Your task to perform on an android device: What is the recent news? Image 0: 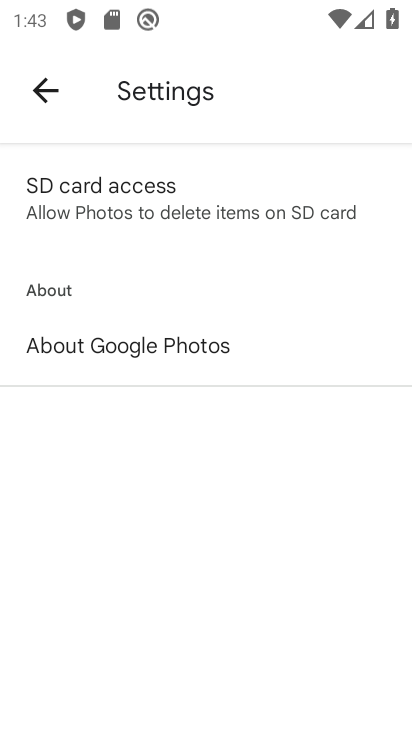
Step 0: press home button
Your task to perform on an android device: What is the recent news? Image 1: 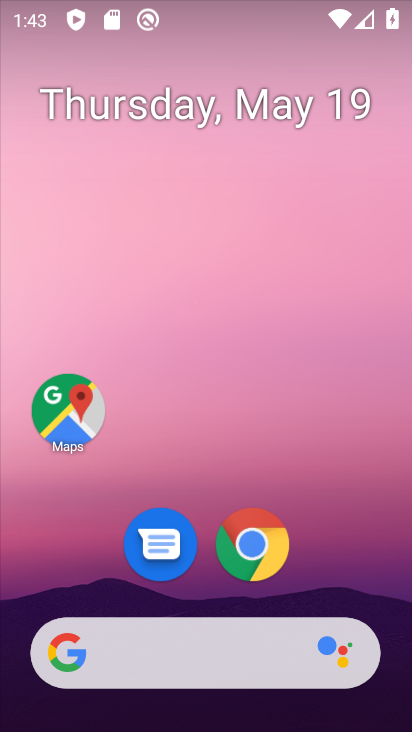
Step 1: click (169, 650)
Your task to perform on an android device: What is the recent news? Image 2: 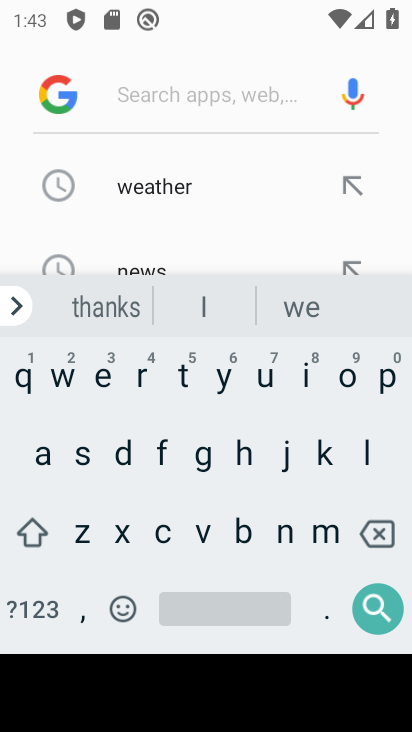
Step 2: click (147, 374)
Your task to perform on an android device: What is the recent news? Image 3: 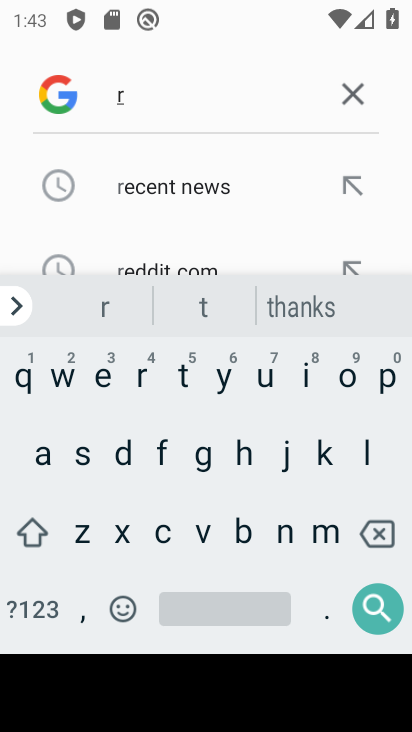
Step 3: click (103, 383)
Your task to perform on an android device: What is the recent news? Image 4: 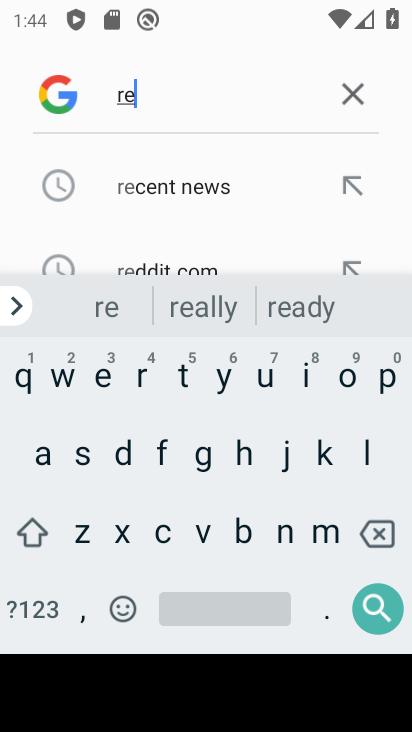
Step 4: click (162, 538)
Your task to perform on an android device: What is the recent news? Image 5: 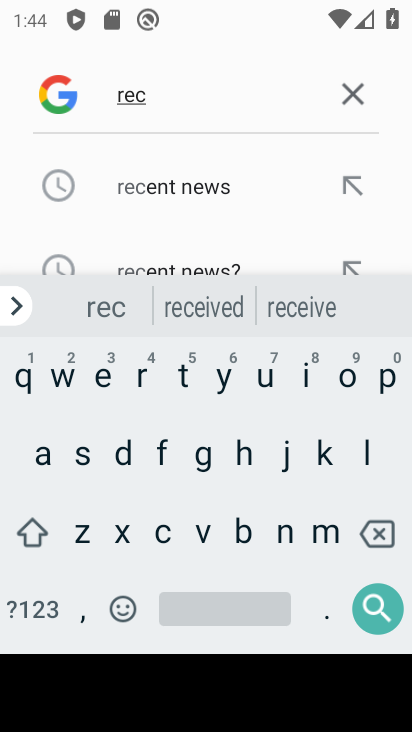
Step 5: click (198, 188)
Your task to perform on an android device: What is the recent news? Image 6: 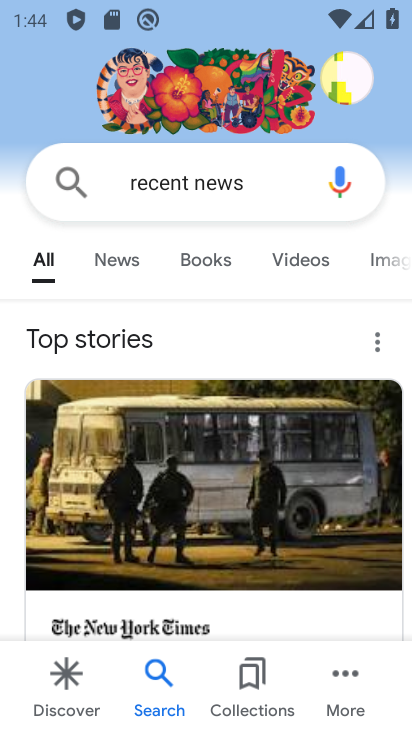
Step 6: task complete